Your task to perform on an android device: Open network settings Image 0: 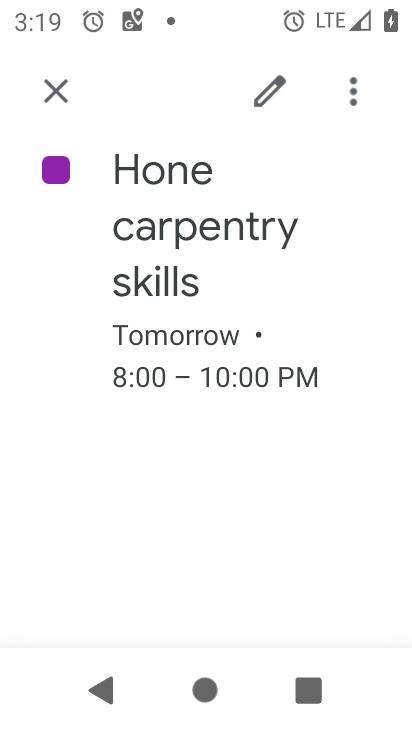
Step 0: press home button
Your task to perform on an android device: Open network settings Image 1: 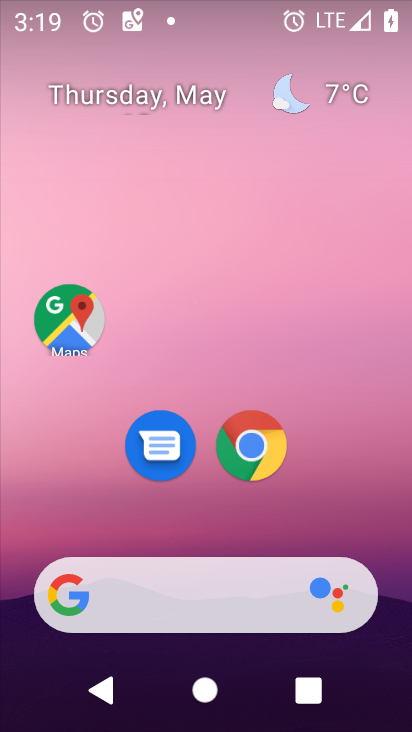
Step 1: drag from (353, 496) to (316, 3)
Your task to perform on an android device: Open network settings Image 2: 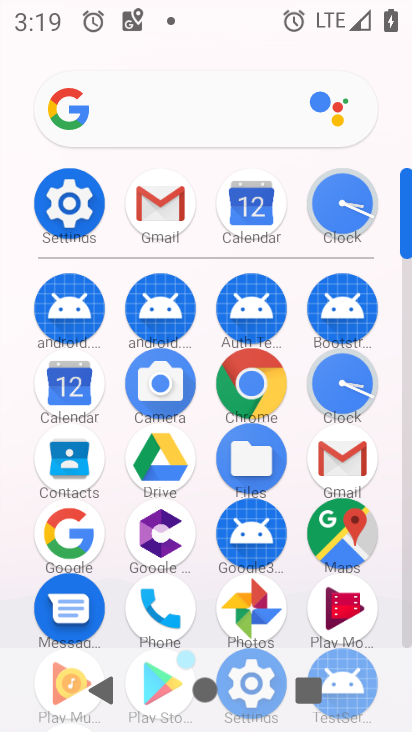
Step 2: click (78, 211)
Your task to perform on an android device: Open network settings Image 3: 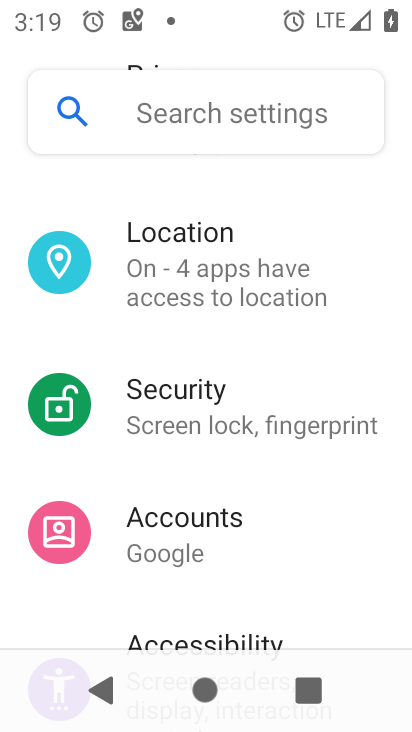
Step 3: drag from (375, 237) to (352, 603)
Your task to perform on an android device: Open network settings Image 4: 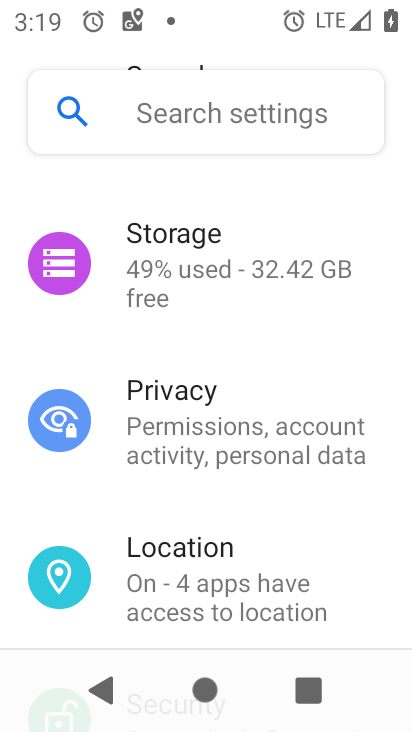
Step 4: drag from (365, 197) to (378, 551)
Your task to perform on an android device: Open network settings Image 5: 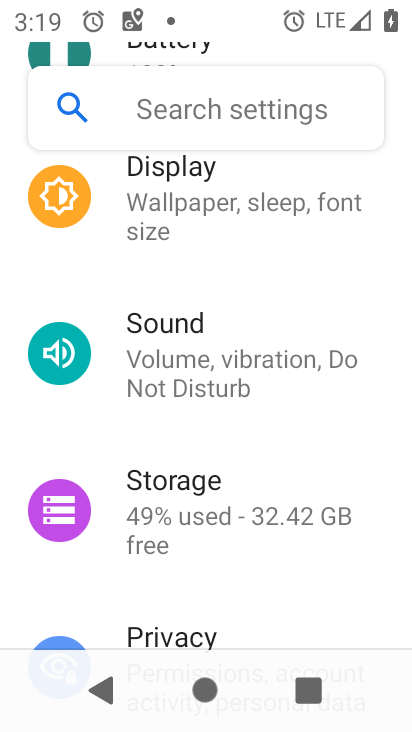
Step 5: drag from (368, 361) to (337, 656)
Your task to perform on an android device: Open network settings Image 6: 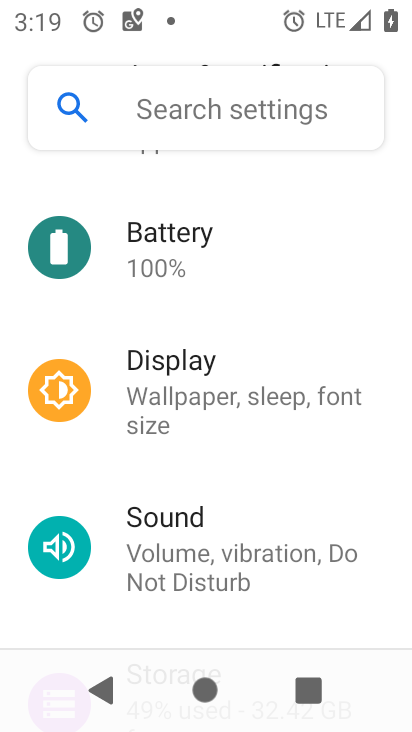
Step 6: drag from (371, 255) to (333, 605)
Your task to perform on an android device: Open network settings Image 7: 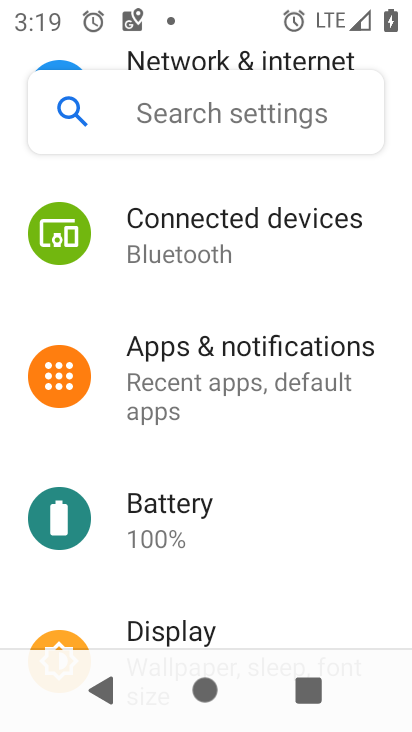
Step 7: drag from (333, 259) to (335, 637)
Your task to perform on an android device: Open network settings Image 8: 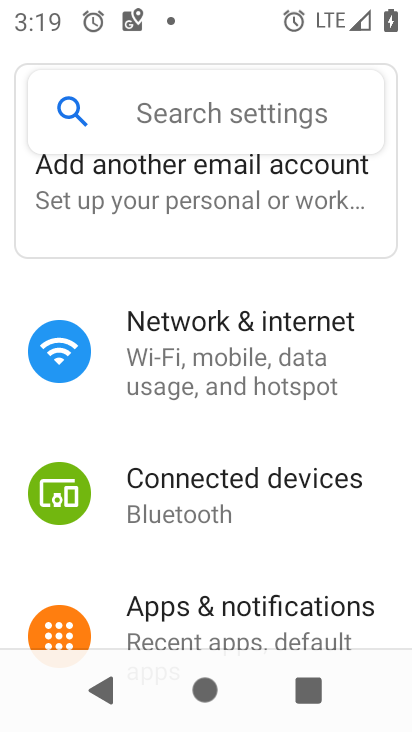
Step 8: click (196, 365)
Your task to perform on an android device: Open network settings Image 9: 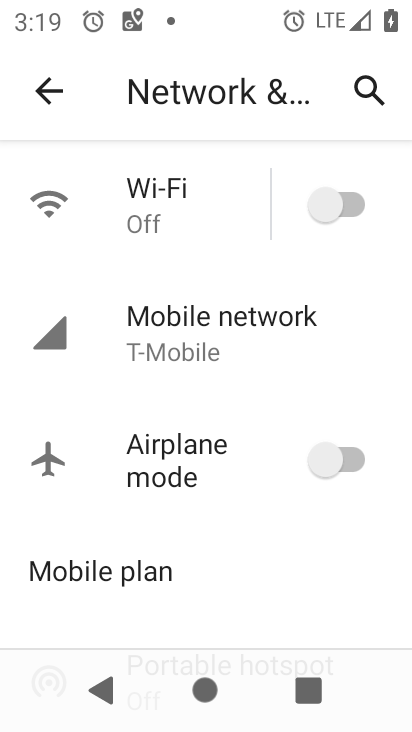
Step 9: click (181, 342)
Your task to perform on an android device: Open network settings Image 10: 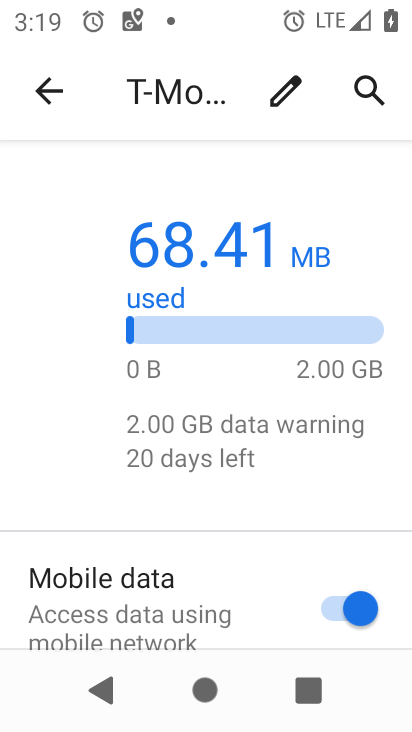
Step 10: drag from (193, 344) to (172, 43)
Your task to perform on an android device: Open network settings Image 11: 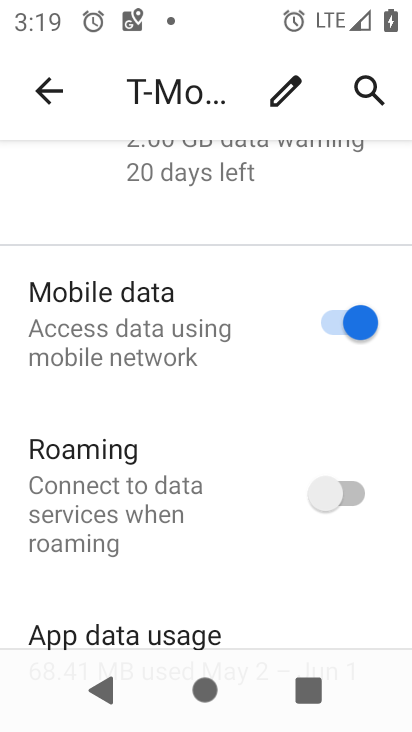
Step 11: drag from (218, 501) to (219, 100)
Your task to perform on an android device: Open network settings Image 12: 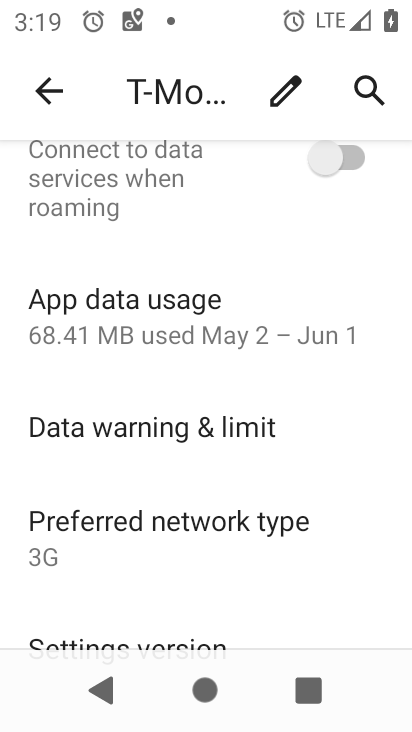
Step 12: drag from (168, 557) to (196, 203)
Your task to perform on an android device: Open network settings Image 13: 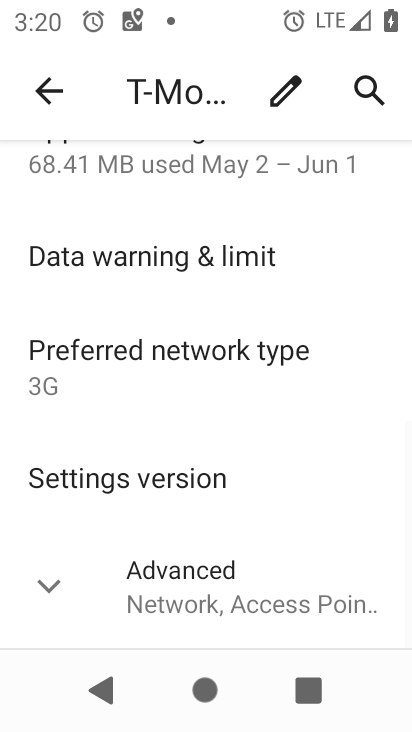
Step 13: drag from (190, 584) to (212, 262)
Your task to perform on an android device: Open network settings Image 14: 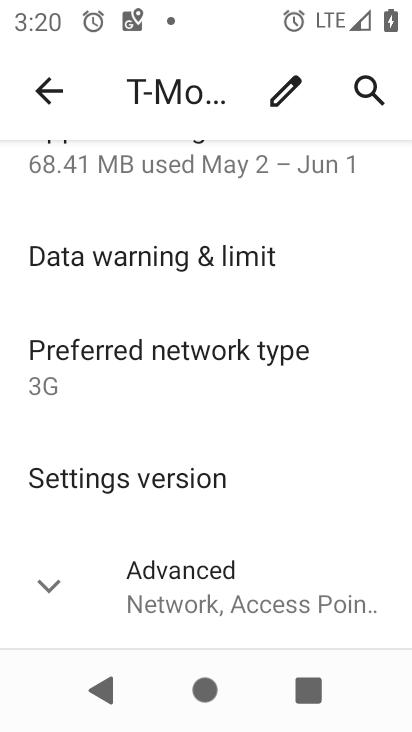
Step 14: click (43, 595)
Your task to perform on an android device: Open network settings Image 15: 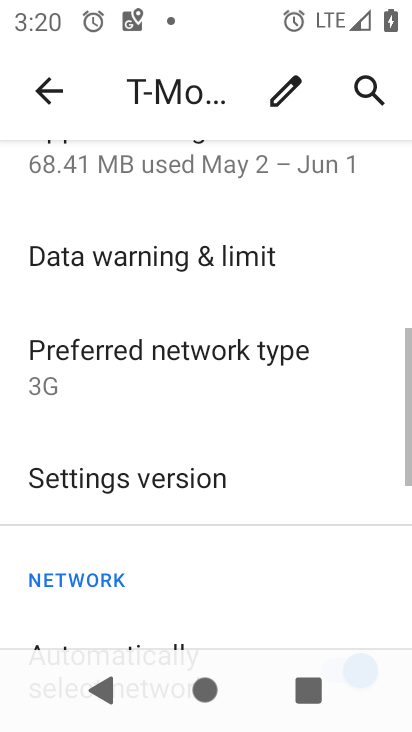
Step 15: task complete